Your task to perform on an android device: open a new tab in the chrome app Image 0: 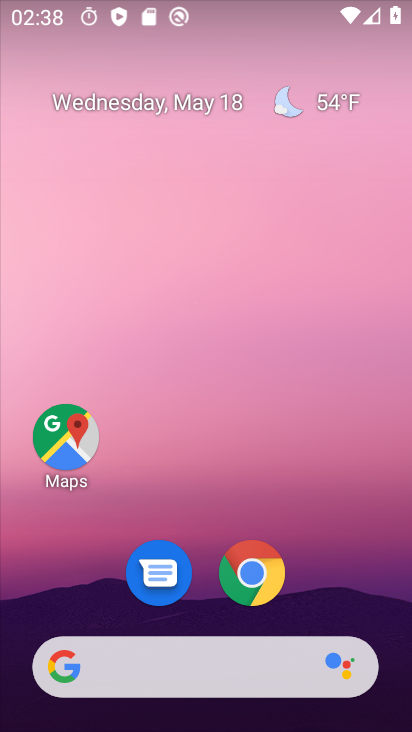
Step 0: click (247, 566)
Your task to perform on an android device: open a new tab in the chrome app Image 1: 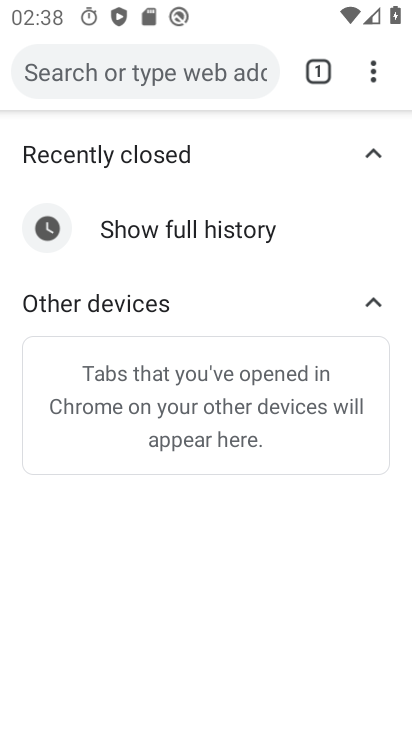
Step 1: click (319, 71)
Your task to perform on an android device: open a new tab in the chrome app Image 2: 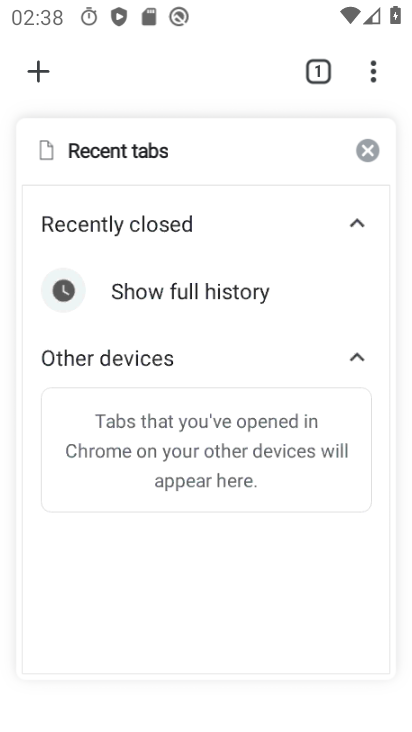
Step 2: click (46, 66)
Your task to perform on an android device: open a new tab in the chrome app Image 3: 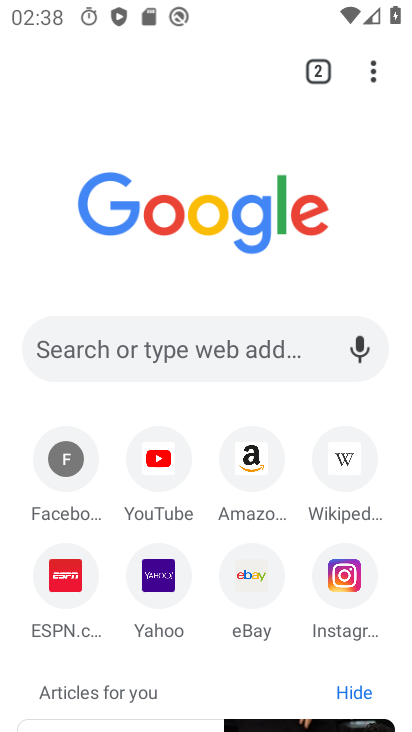
Step 3: task complete